Your task to perform on an android device: Open calendar and show me the third week of next month Image 0: 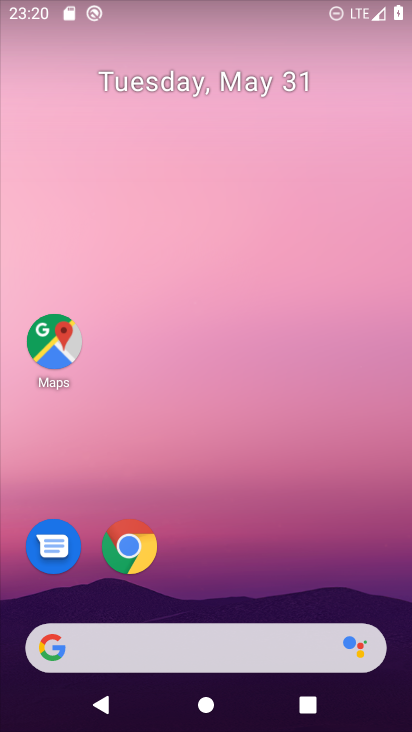
Step 0: drag from (394, 469) to (358, 70)
Your task to perform on an android device: Open calendar and show me the third week of next month Image 1: 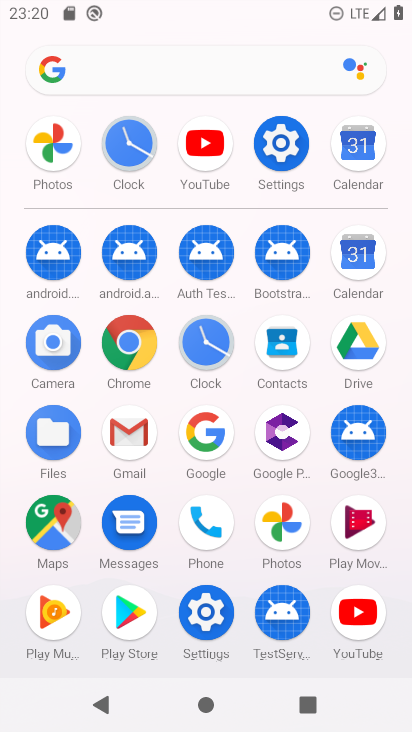
Step 1: click (352, 261)
Your task to perform on an android device: Open calendar and show me the third week of next month Image 2: 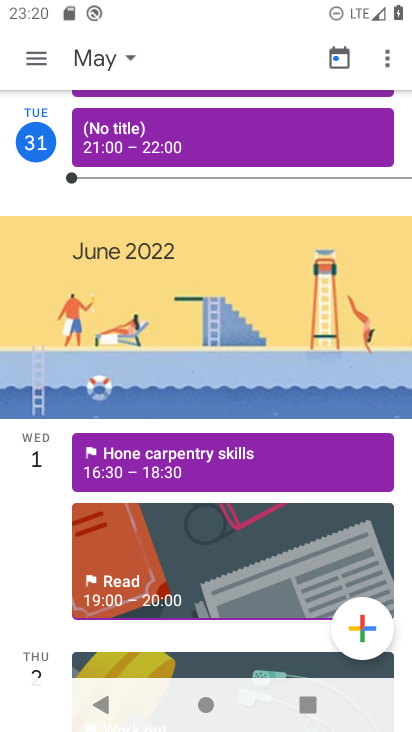
Step 2: click (119, 56)
Your task to perform on an android device: Open calendar and show me the third week of next month Image 3: 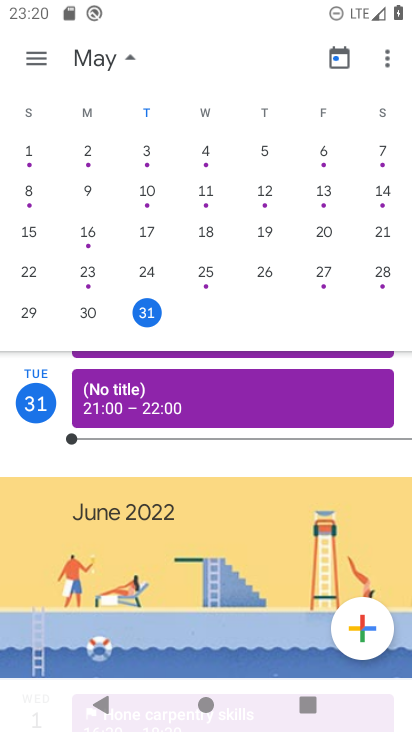
Step 3: drag from (398, 233) to (53, 197)
Your task to perform on an android device: Open calendar and show me the third week of next month Image 4: 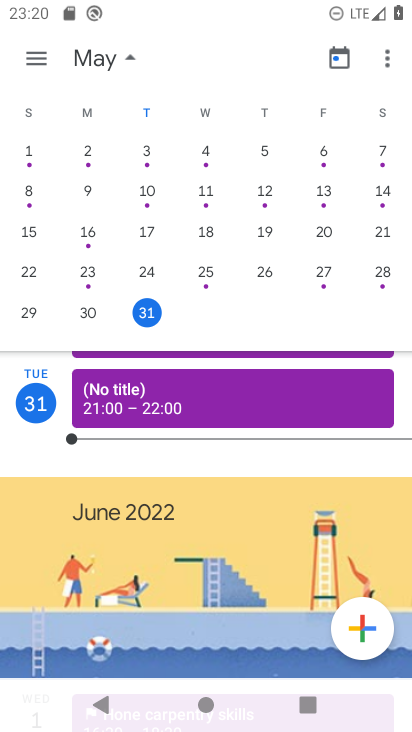
Step 4: drag from (401, 200) to (88, 179)
Your task to perform on an android device: Open calendar and show me the third week of next month Image 5: 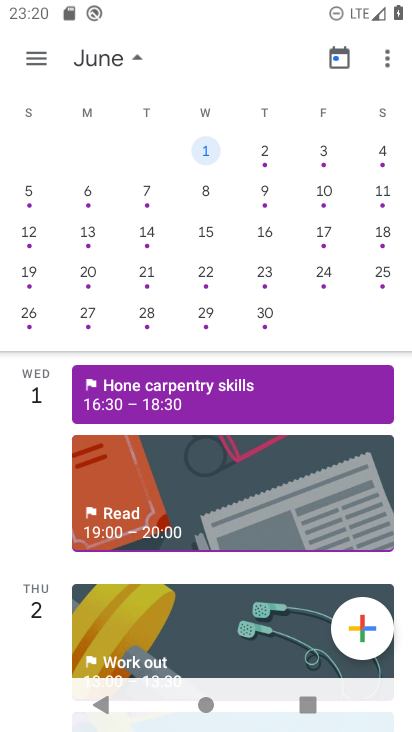
Step 5: click (206, 228)
Your task to perform on an android device: Open calendar and show me the third week of next month Image 6: 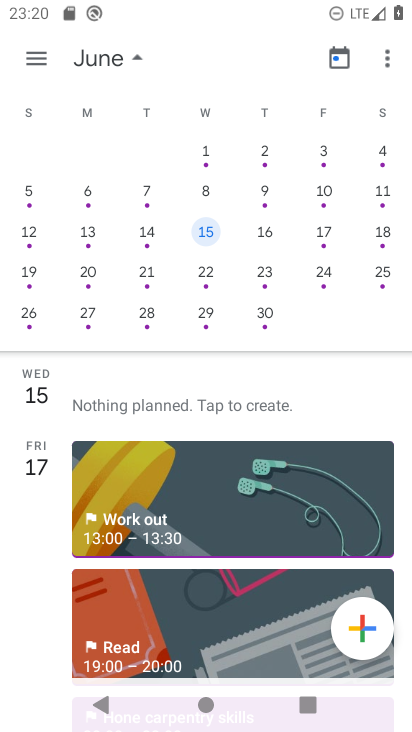
Step 6: task complete